Your task to perform on an android device: turn on priority inbox in the gmail app Image 0: 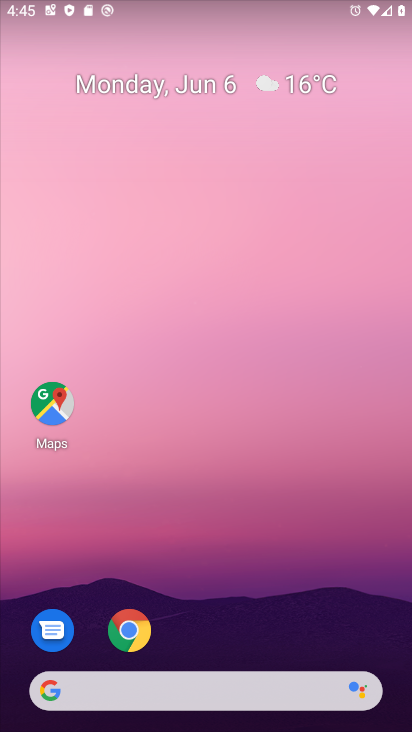
Step 0: drag from (314, 629) to (216, 6)
Your task to perform on an android device: turn on priority inbox in the gmail app Image 1: 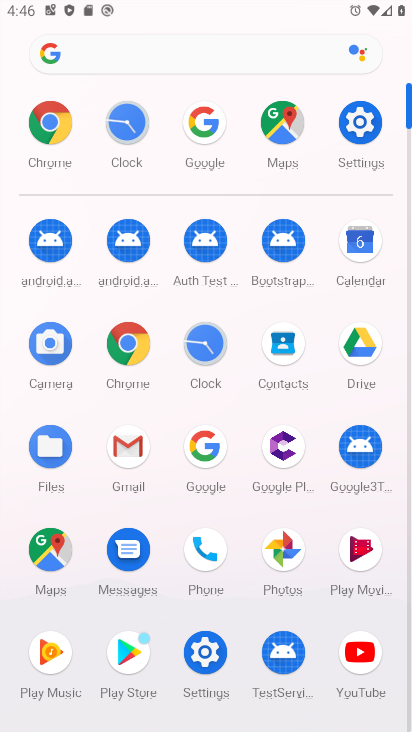
Step 1: click (138, 451)
Your task to perform on an android device: turn on priority inbox in the gmail app Image 2: 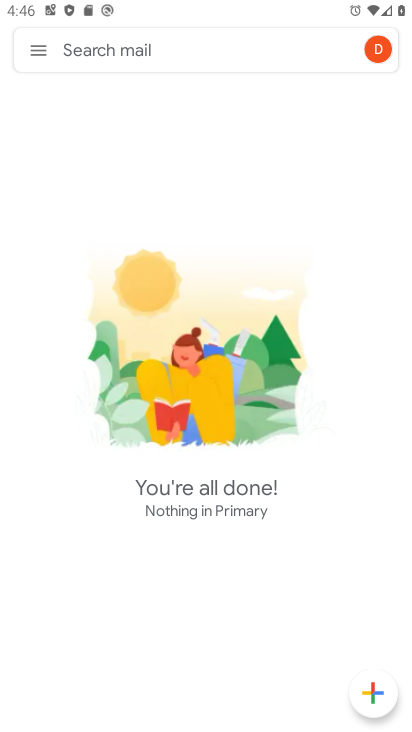
Step 2: click (33, 55)
Your task to perform on an android device: turn on priority inbox in the gmail app Image 3: 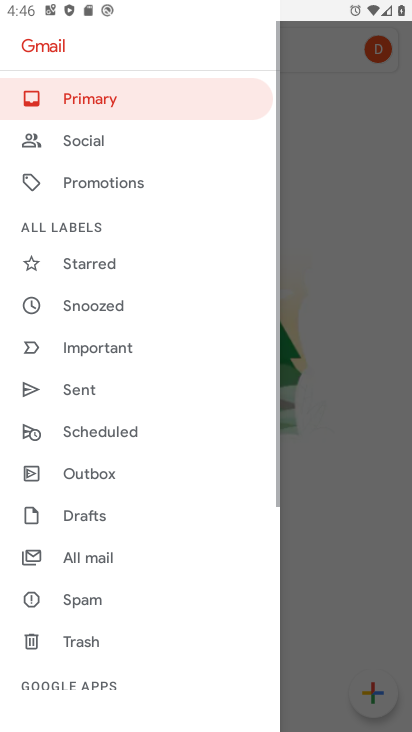
Step 3: drag from (128, 558) to (150, 145)
Your task to perform on an android device: turn on priority inbox in the gmail app Image 4: 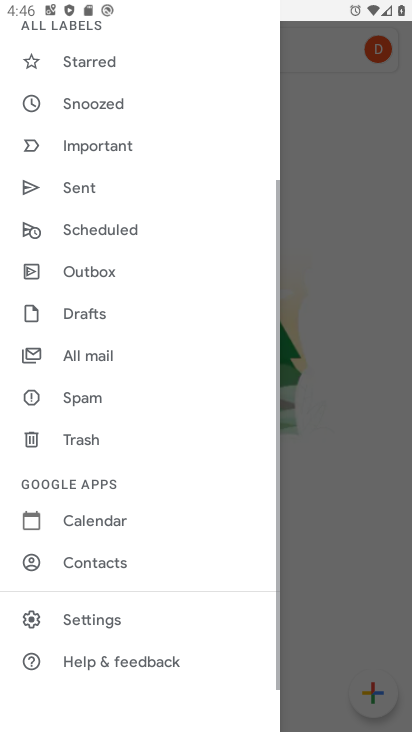
Step 4: click (92, 626)
Your task to perform on an android device: turn on priority inbox in the gmail app Image 5: 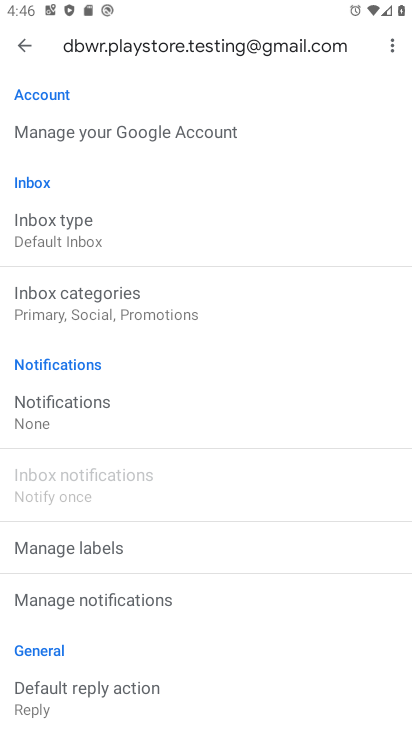
Step 5: click (84, 227)
Your task to perform on an android device: turn on priority inbox in the gmail app Image 6: 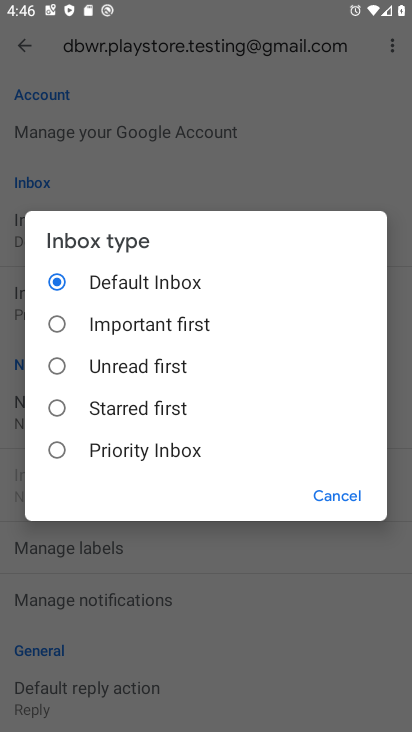
Step 6: click (166, 457)
Your task to perform on an android device: turn on priority inbox in the gmail app Image 7: 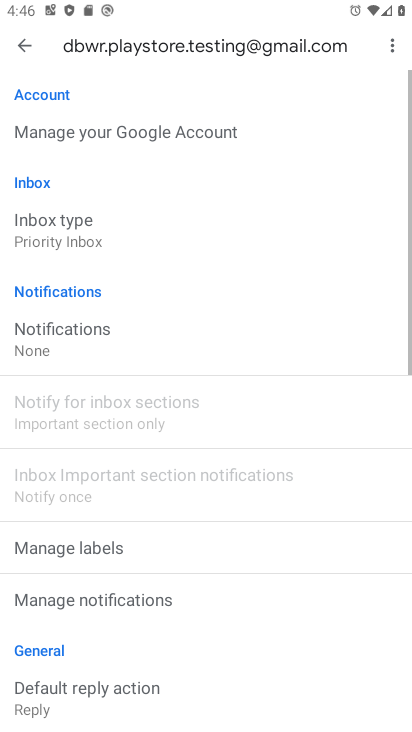
Step 7: task complete